Your task to perform on an android device: clear history in the chrome app Image 0: 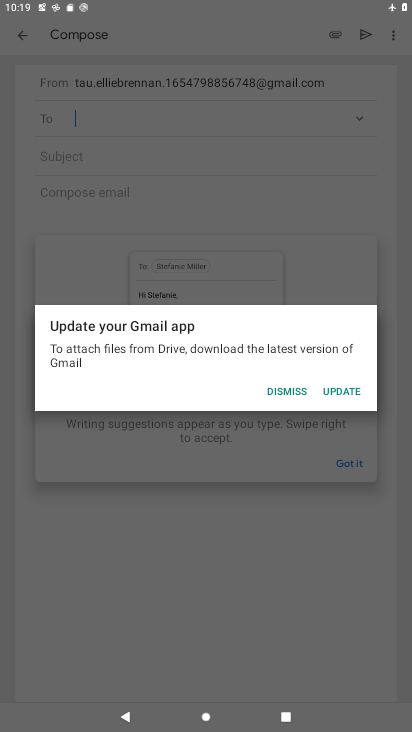
Step 0: press home button
Your task to perform on an android device: clear history in the chrome app Image 1: 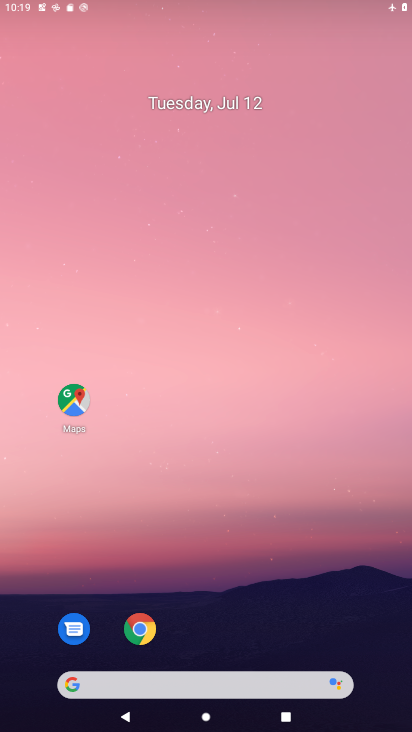
Step 1: drag from (263, 637) to (228, 79)
Your task to perform on an android device: clear history in the chrome app Image 2: 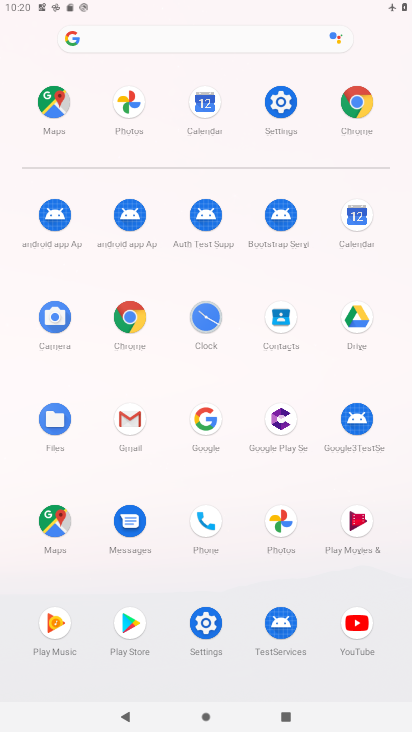
Step 2: click (126, 314)
Your task to perform on an android device: clear history in the chrome app Image 3: 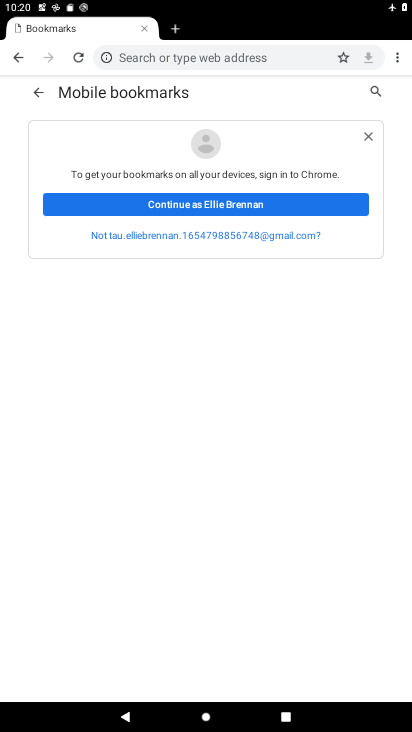
Step 3: drag from (395, 53) to (325, 180)
Your task to perform on an android device: clear history in the chrome app Image 4: 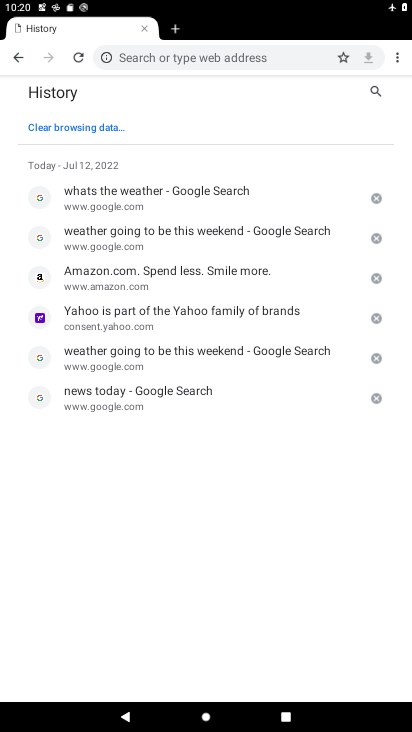
Step 4: click (79, 126)
Your task to perform on an android device: clear history in the chrome app Image 5: 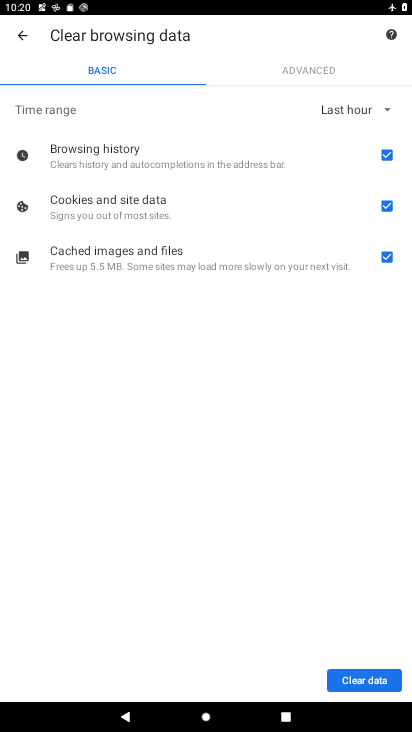
Step 5: click (365, 671)
Your task to perform on an android device: clear history in the chrome app Image 6: 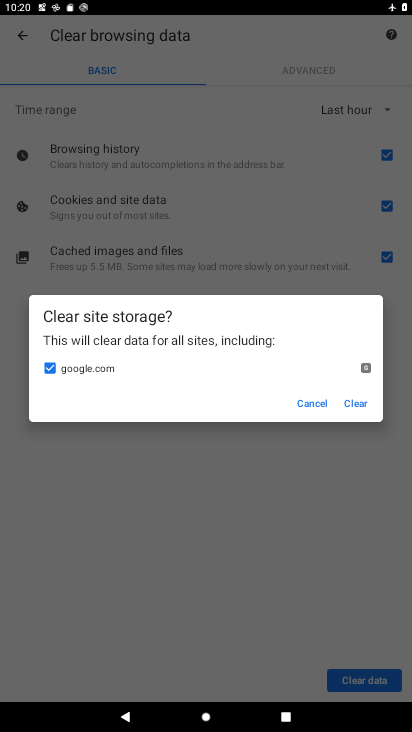
Step 6: click (356, 398)
Your task to perform on an android device: clear history in the chrome app Image 7: 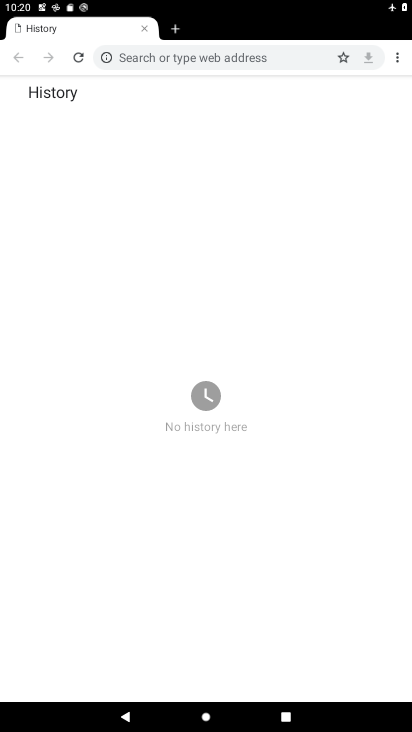
Step 7: task complete